Your task to perform on an android device: star an email in the gmail app Image 0: 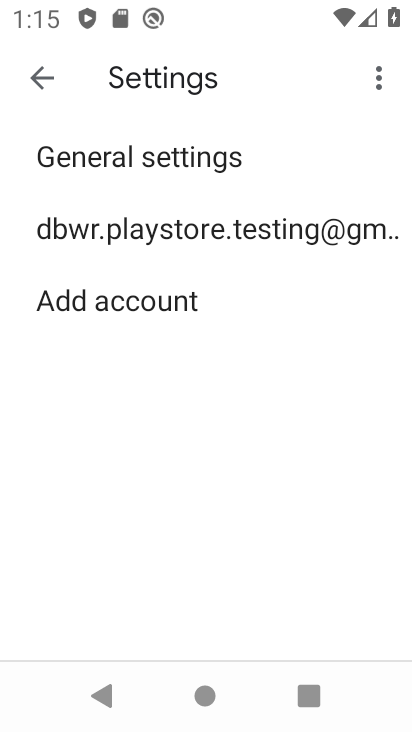
Step 0: click (41, 76)
Your task to perform on an android device: star an email in the gmail app Image 1: 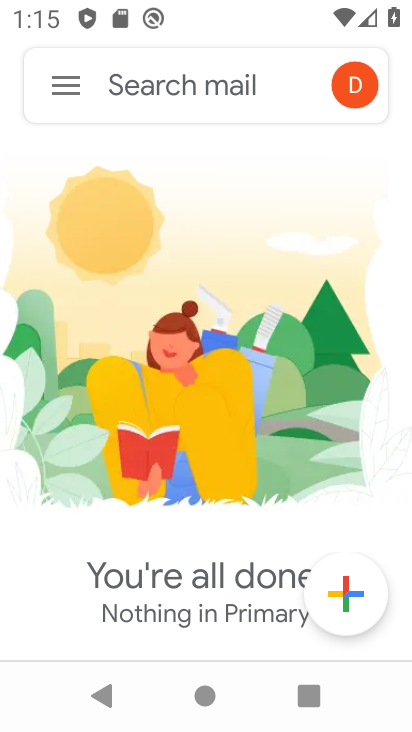
Step 1: click (68, 89)
Your task to perform on an android device: star an email in the gmail app Image 2: 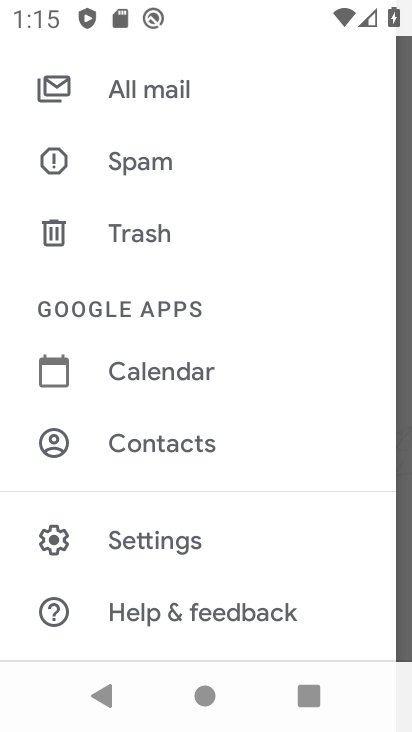
Step 2: click (138, 78)
Your task to perform on an android device: star an email in the gmail app Image 3: 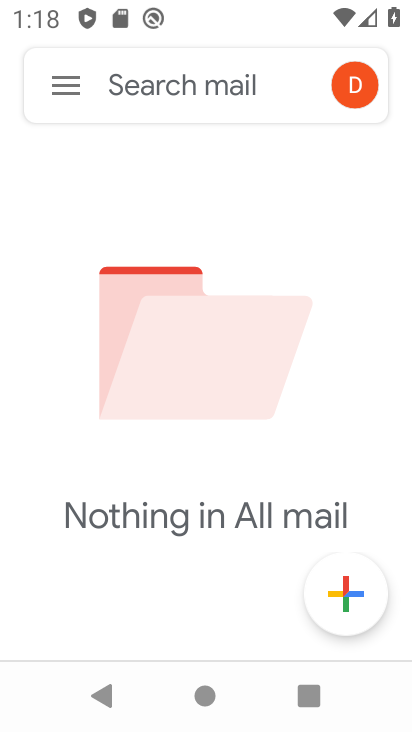
Step 3: task complete